Your task to perform on an android device: Show me the alarms in the clock app Image 0: 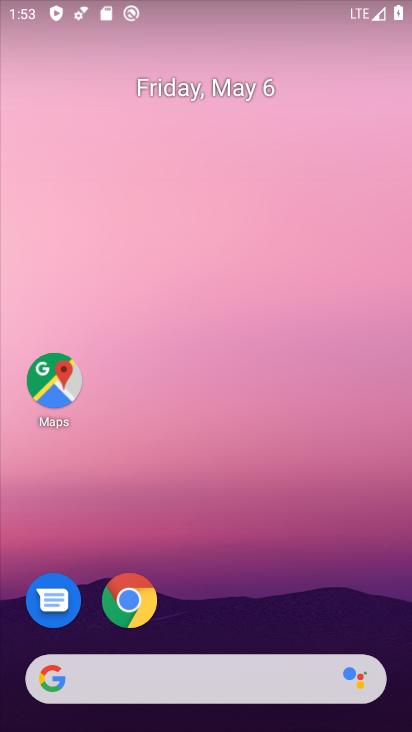
Step 0: drag from (212, 597) to (275, 155)
Your task to perform on an android device: Show me the alarms in the clock app Image 1: 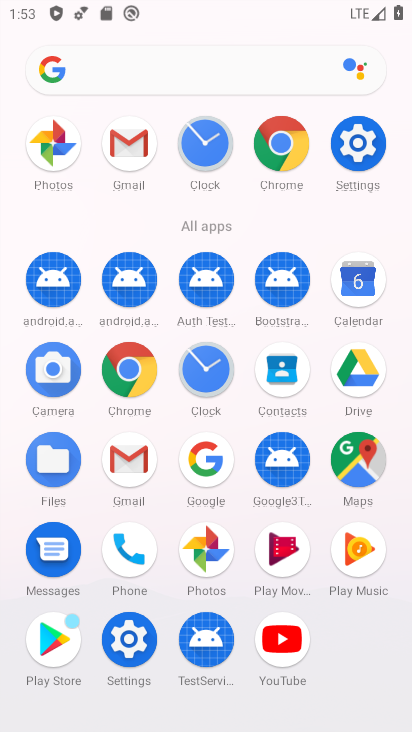
Step 1: click (211, 376)
Your task to perform on an android device: Show me the alarms in the clock app Image 2: 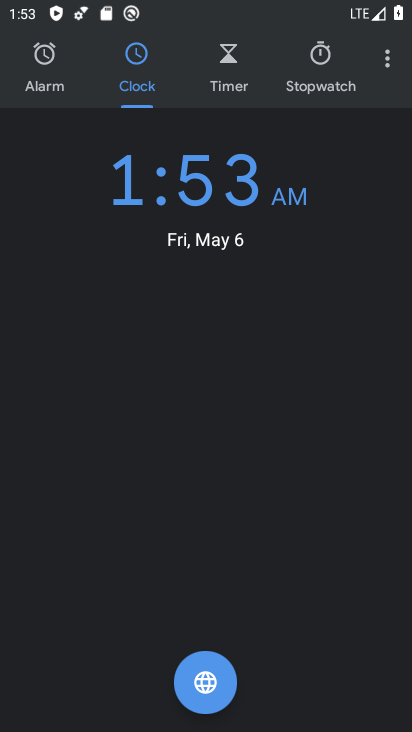
Step 2: click (46, 85)
Your task to perform on an android device: Show me the alarms in the clock app Image 3: 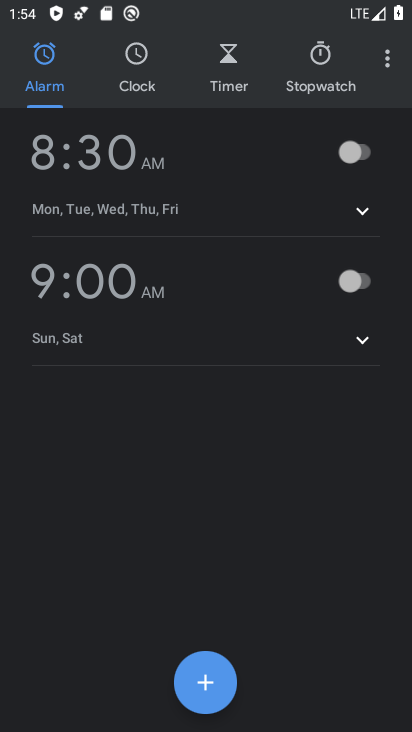
Step 3: task complete